Your task to perform on an android device: Check the news Image 0: 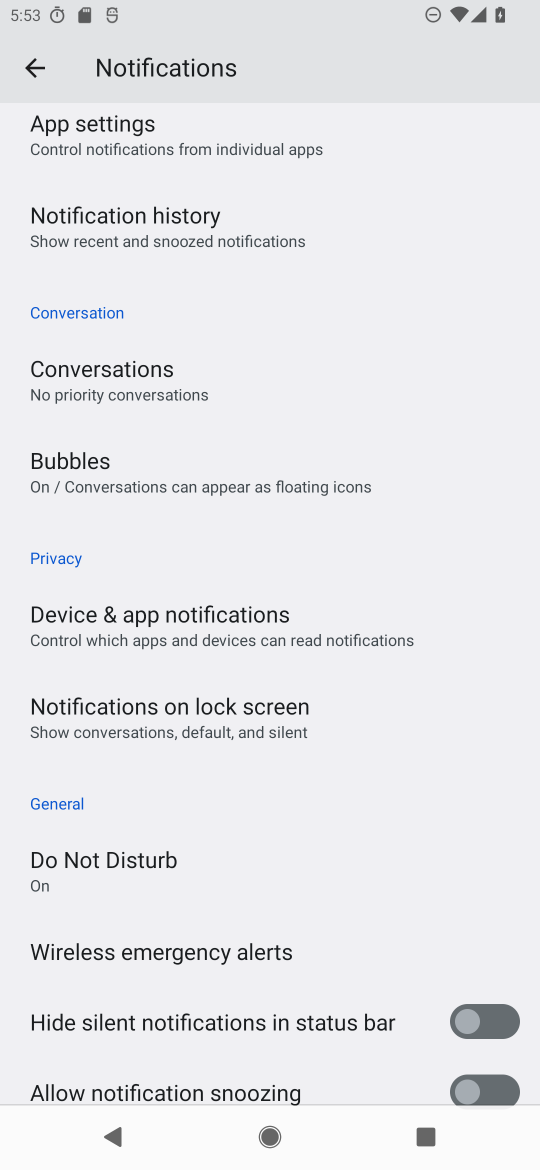
Step 0: press home button
Your task to perform on an android device: Check the news Image 1: 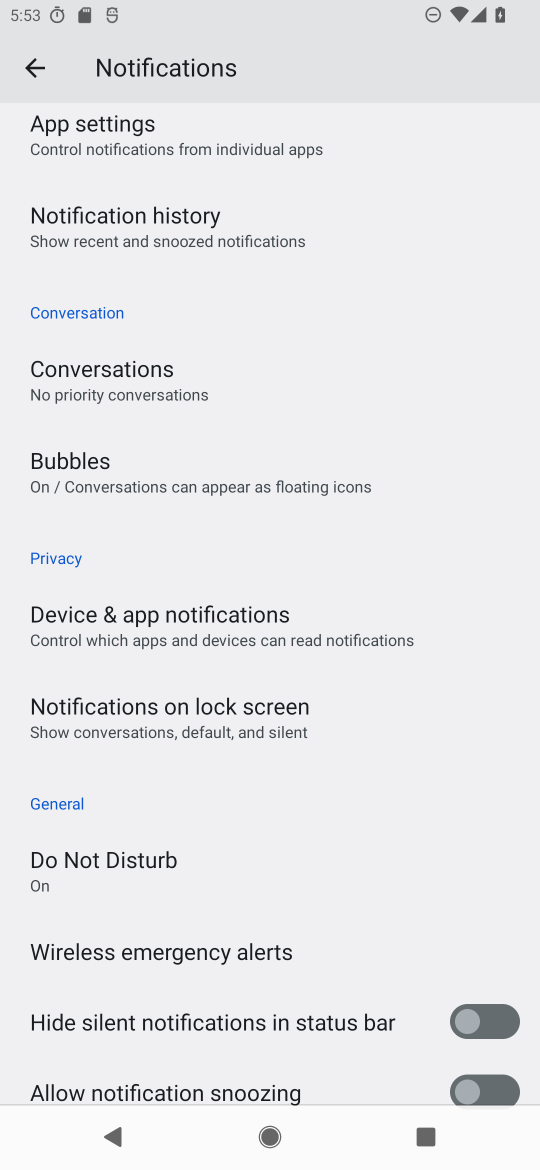
Step 1: press home button
Your task to perform on an android device: Check the news Image 2: 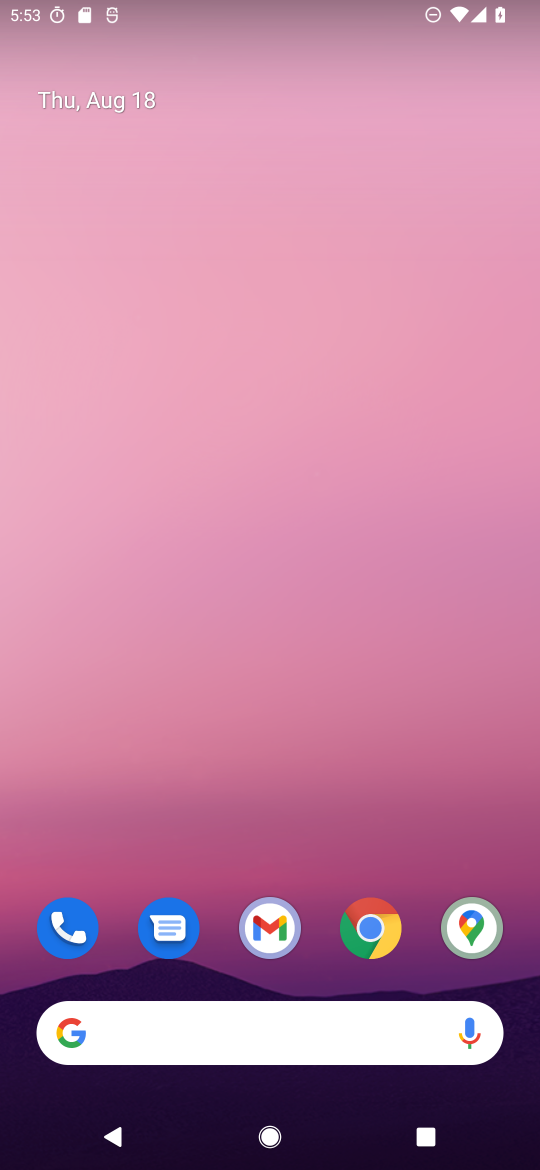
Step 2: drag from (300, 855) to (305, 6)
Your task to perform on an android device: Check the news Image 3: 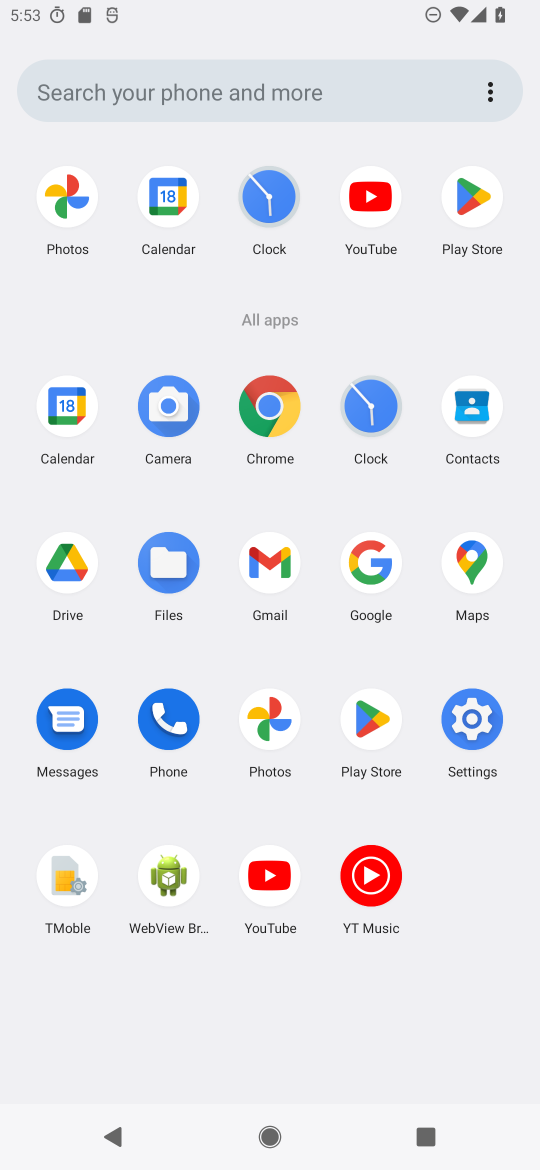
Step 3: click (275, 403)
Your task to perform on an android device: Check the news Image 4: 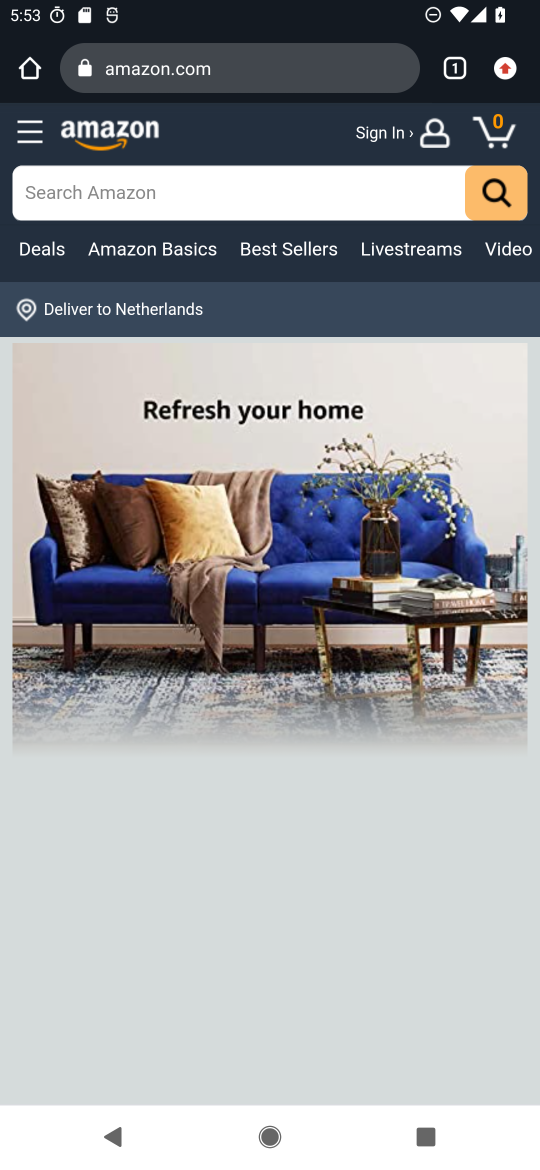
Step 4: click (294, 66)
Your task to perform on an android device: Check the news Image 5: 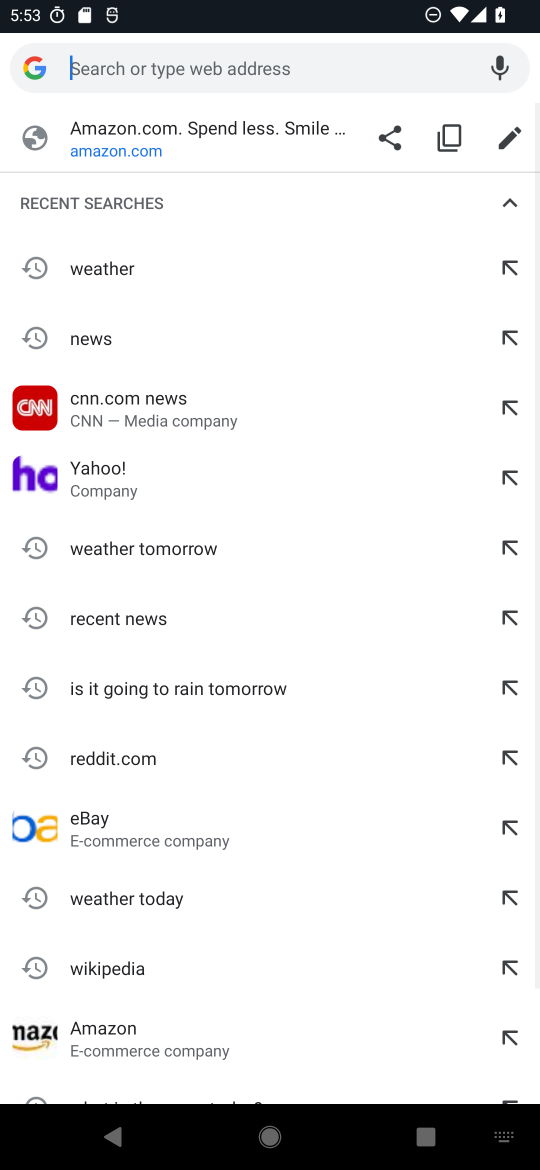
Step 5: type "news"
Your task to perform on an android device: Check the news Image 6: 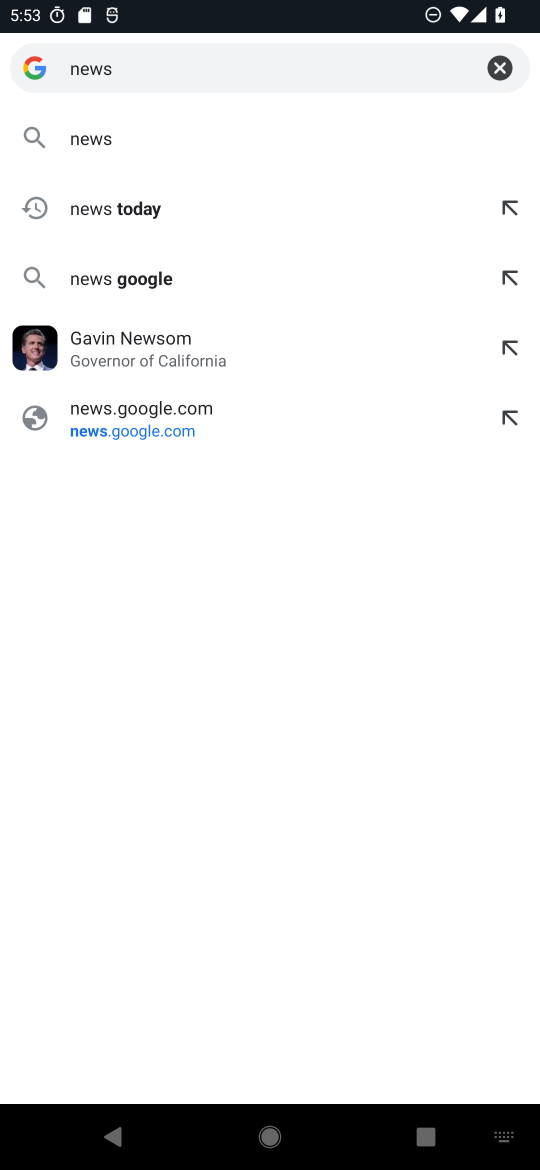
Step 6: click (114, 153)
Your task to perform on an android device: Check the news Image 7: 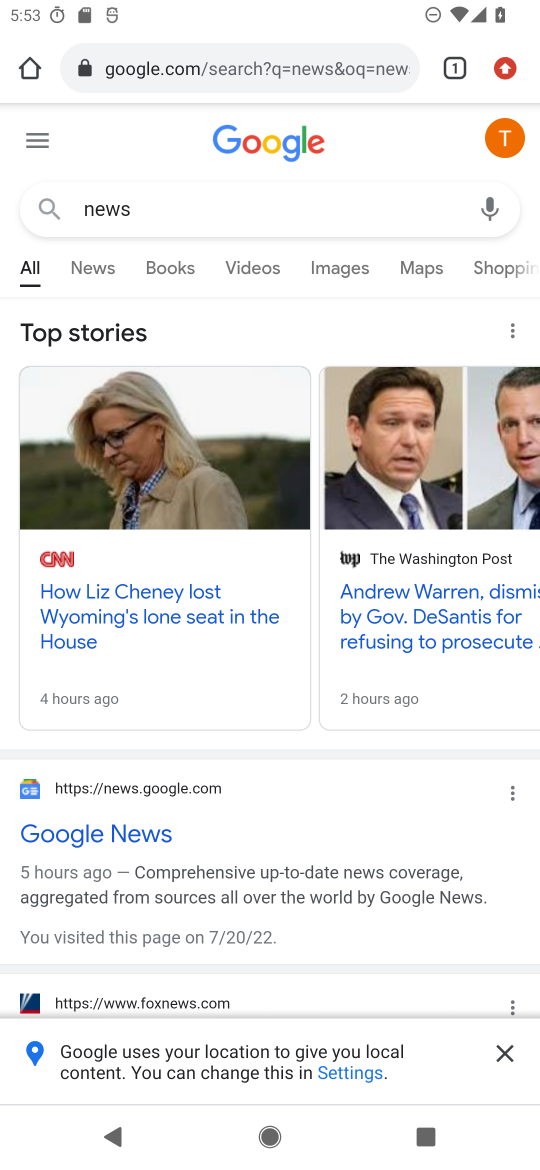
Step 7: click (155, 830)
Your task to perform on an android device: Check the news Image 8: 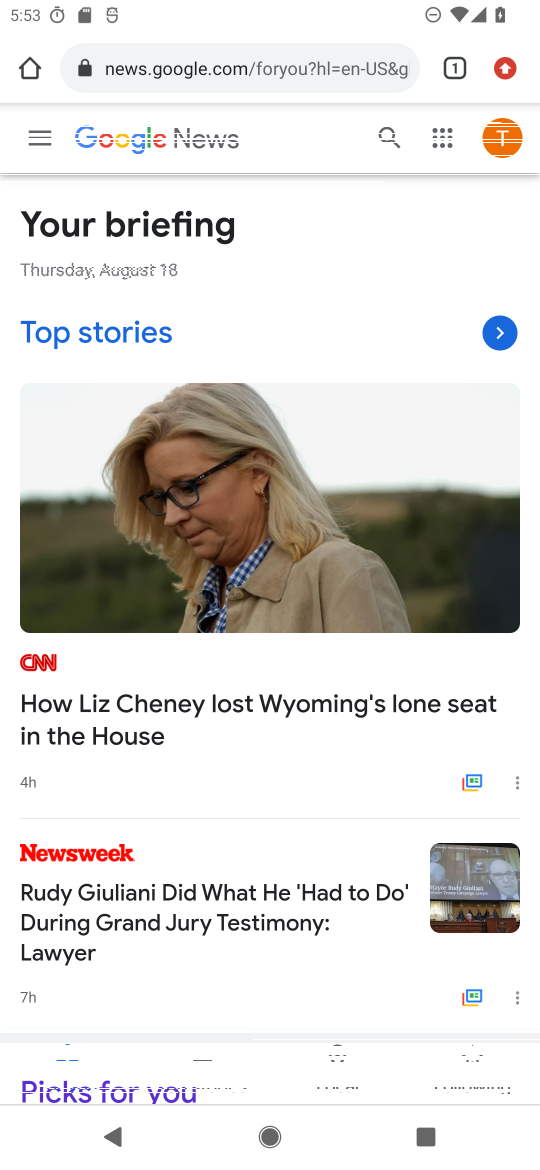
Step 8: task complete